Your task to perform on an android device: Open the Play Movies app and select the watchlist tab. Image 0: 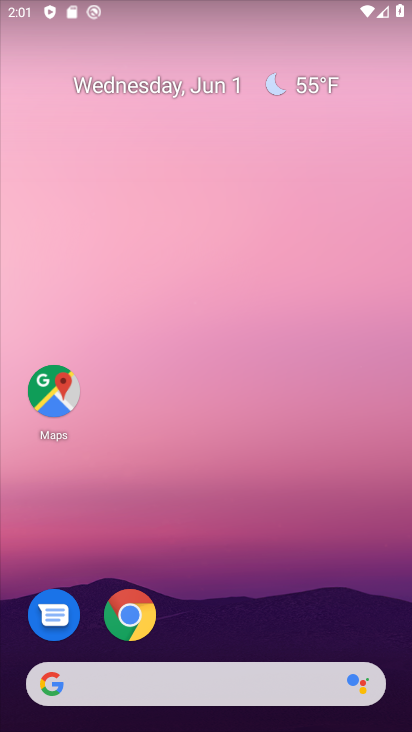
Step 0: drag from (204, 650) to (291, 158)
Your task to perform on an android device: Open the Play Movies app and select the watchlist tab. Image 1: 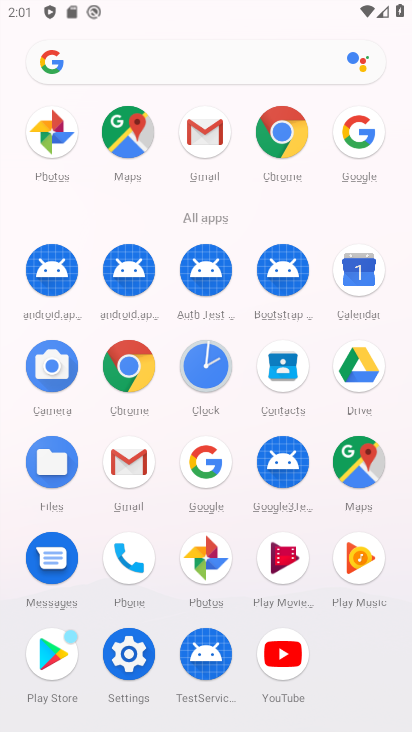
Step 1: drag from (223, 574) to (258, 447)
Your task to perform on an android device: Open the Play Movies app and select the watchlist tab. Image 2: 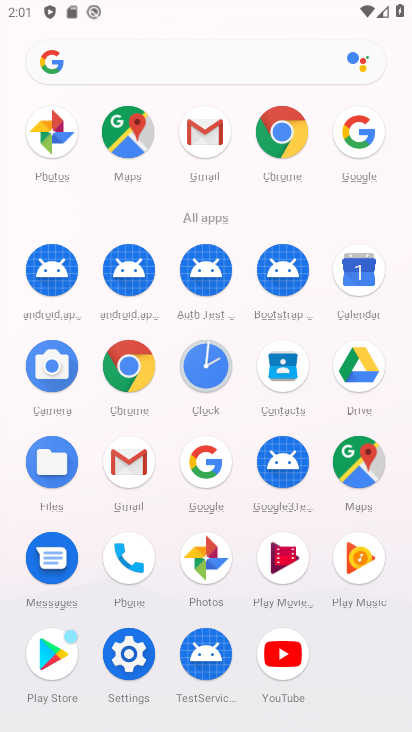
Step 2: click (288, 564)
Your task to perform on an android device: Open the Play Movies app and select the watchlist tab. Image 3: 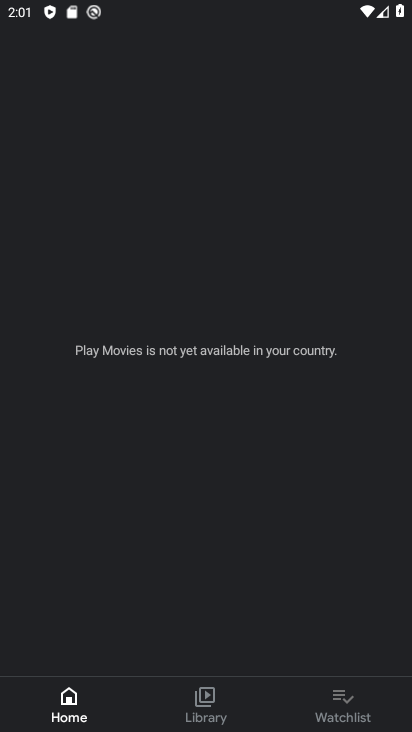
Step 3: click (349, 701)
Your task to perform on an android device: Open the Play Movies app and select the watchlist tab. Image 4: 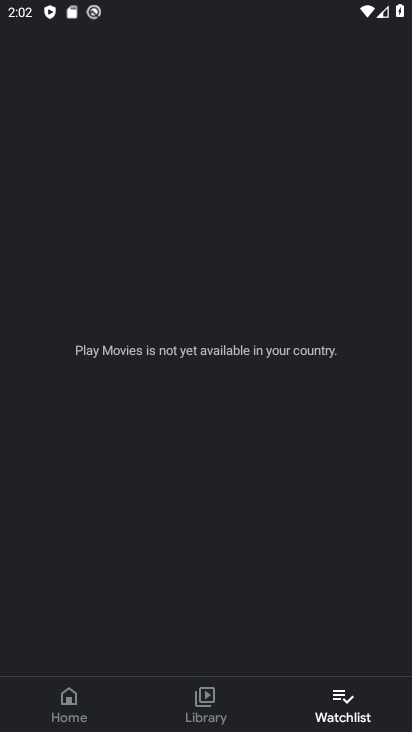
Step 4: task complete